Your task to perform on an android device: add a label to a message in the gmail app Image 0: 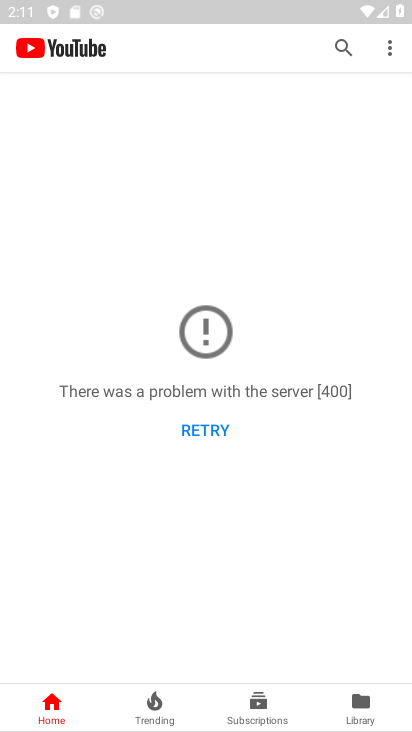
Step 0: press home button
Your task to perform on an android device: add a label to a message in the gmail app Image 1: 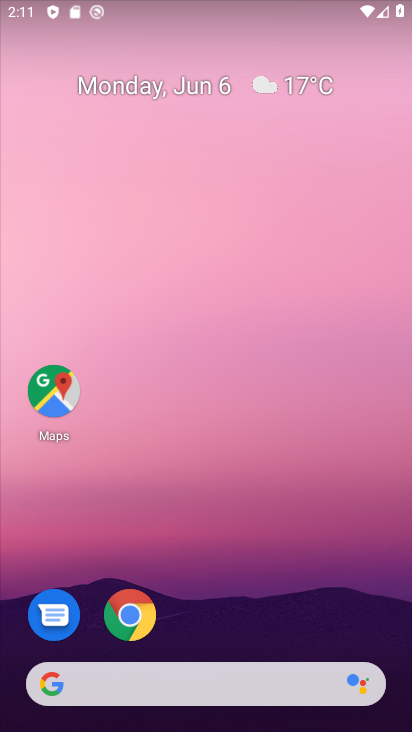
Step 1: drag from (199, 577) to (291, 123)
Your task to perform on an android device: add a label to a message in the gmail app Image 2: 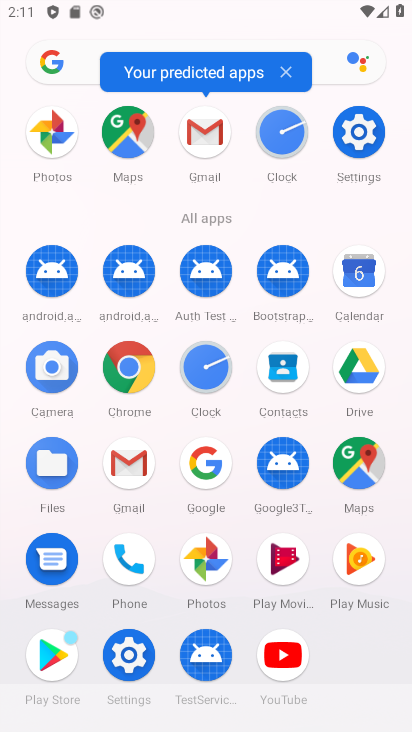
Step 2: click (130, 473)
Your task to perform on an android device: add a label to a message in the gmail app Image 3: 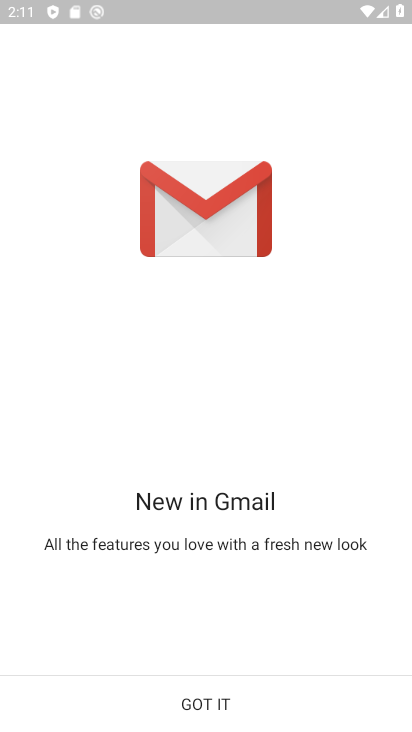
Step 3: click (203, 705)
Your task to perform on an android device: add a label to a message in the gmail app Image 4: 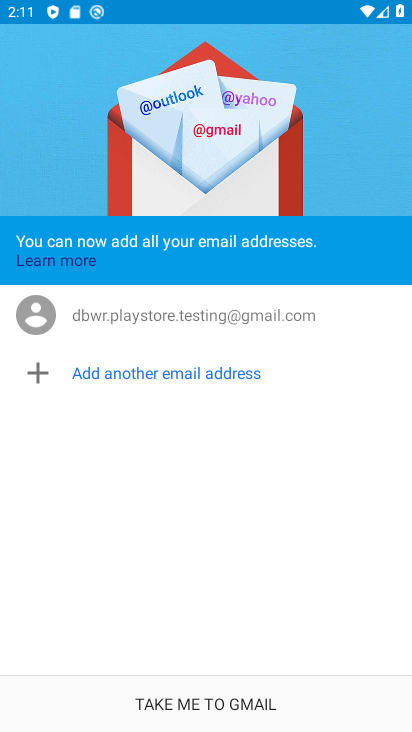
Step 4: click (206, 704)
Your task to perform on an android device: add a label to a message in the gmail app Image 5: 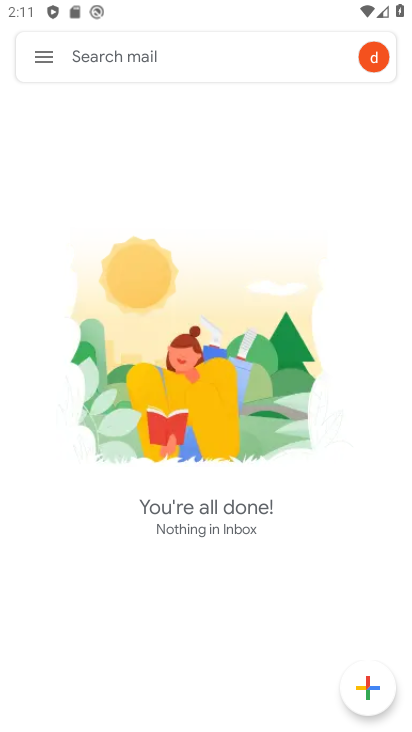
Step 5: click (49, 44)
Your task to perform on an android device: add a label to a message in the gmail app Image 6: 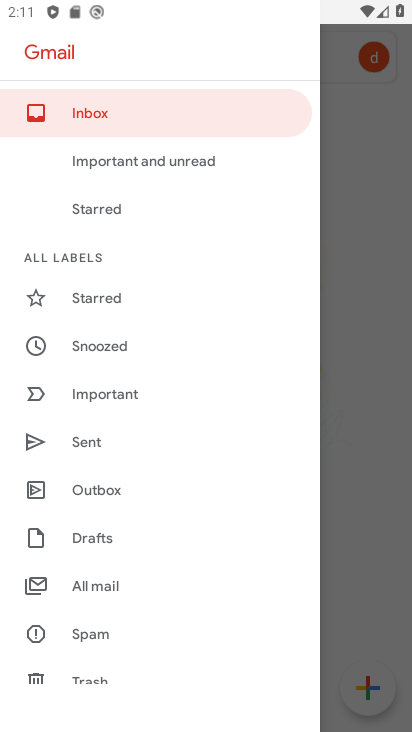
Step 6: click (83, 587)
Your task to perform on an android device: add a label to a message in the gmail app Image 7: 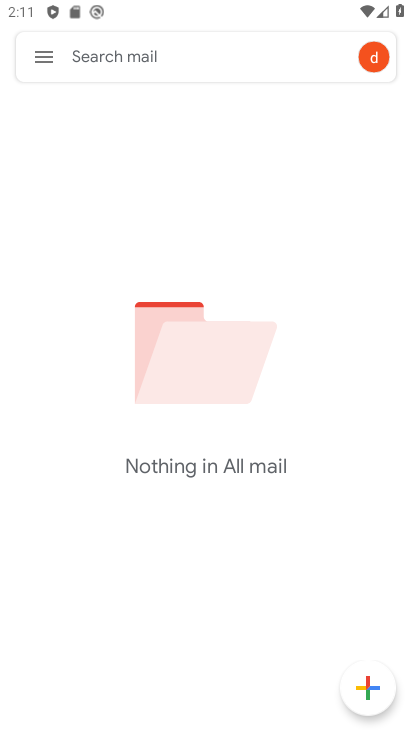
Step 7: task complete